Your task to perform on an android device: Do I have any events today? Image 0: 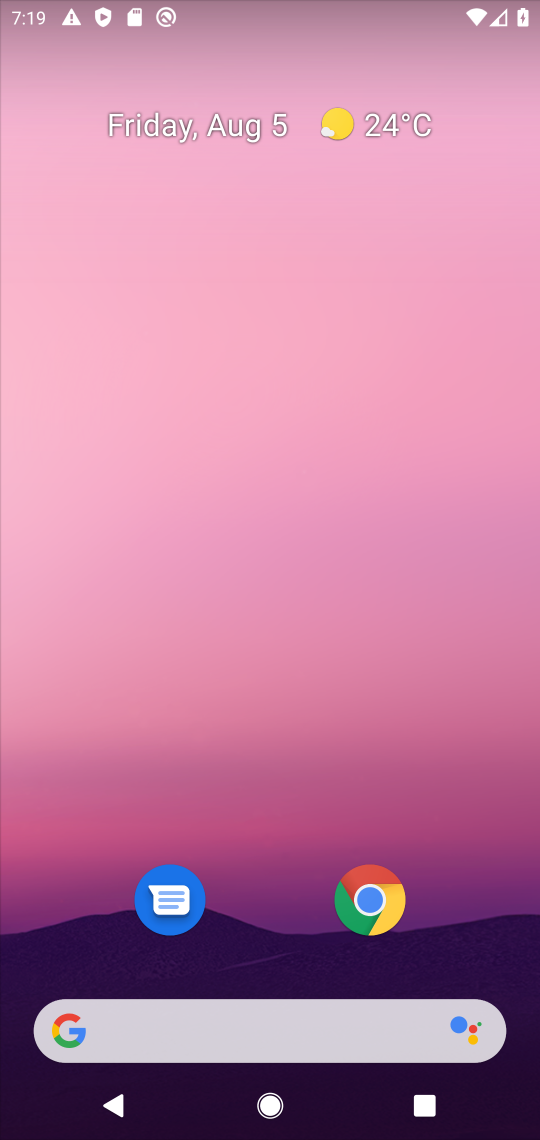
Step 0: drag from (471, 743) to (385, 3)
Your task to perform on an android device: Do I have any events today? Image 1: 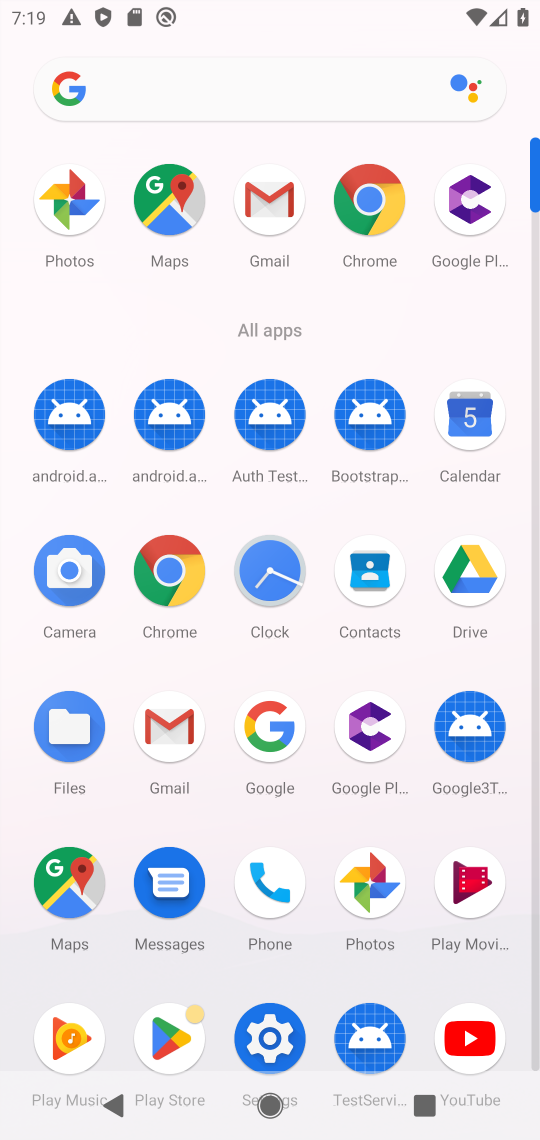
Step 1: click (492, 426)
Your task to perform on an android device: Do I have any events today? Image 2: 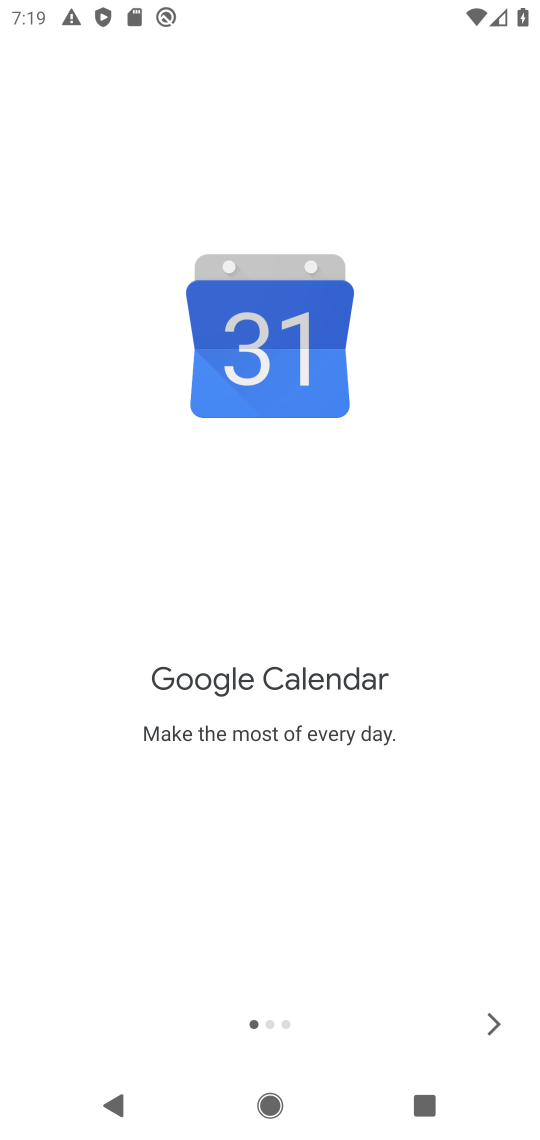
Step 2: click (494, 1017)
Your task to perform on an android device: Do I have any events today? Image 3: 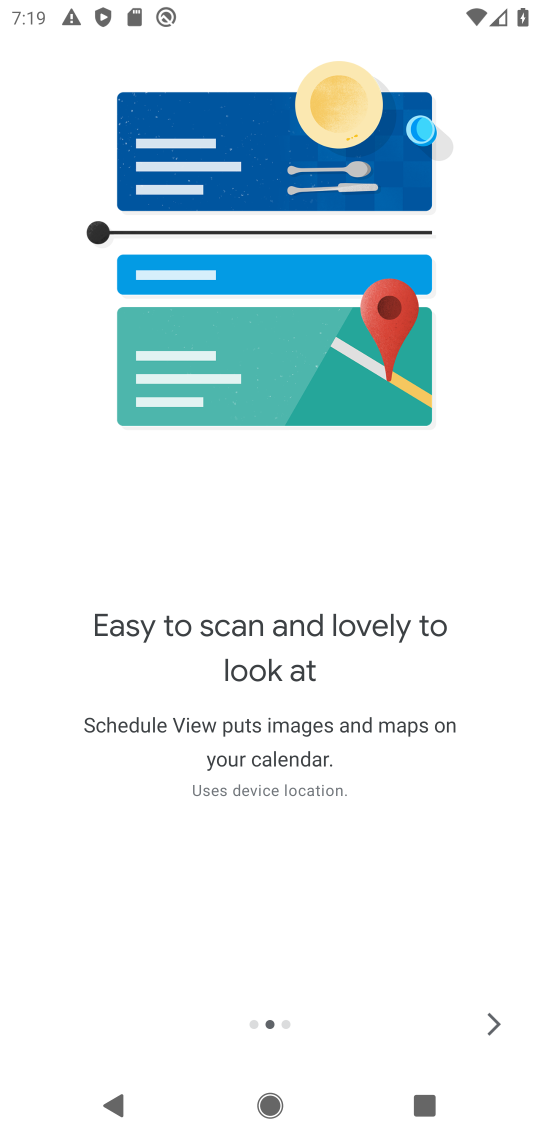
Step 3: click (494, 1017)
Your task to perform on an android device: Do I have any events today? Image 4: 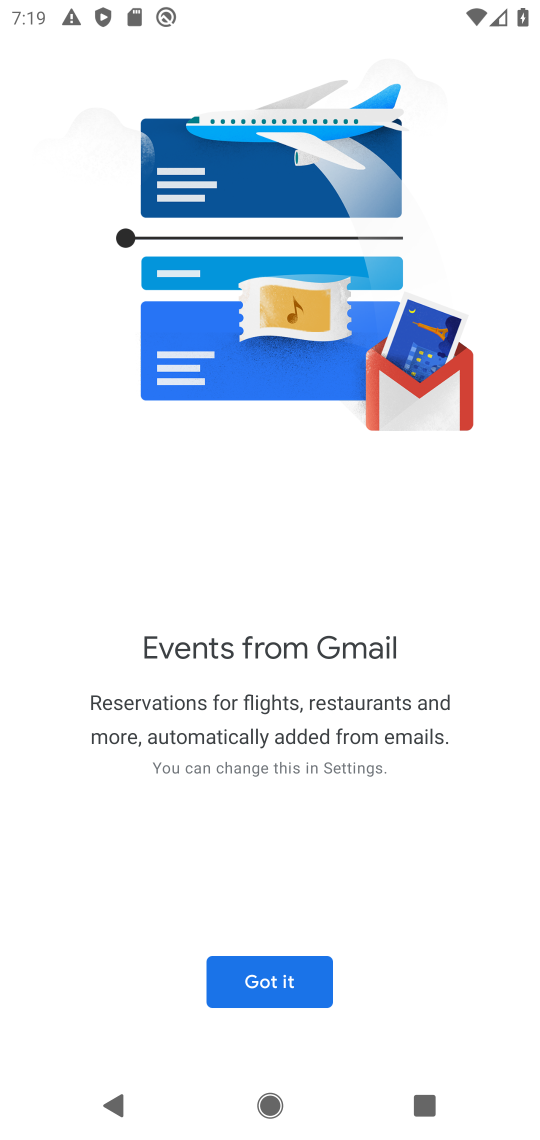
Step 4: click (246, 979)
Your task to perform on an android device: Do I have any events today? Image 5: 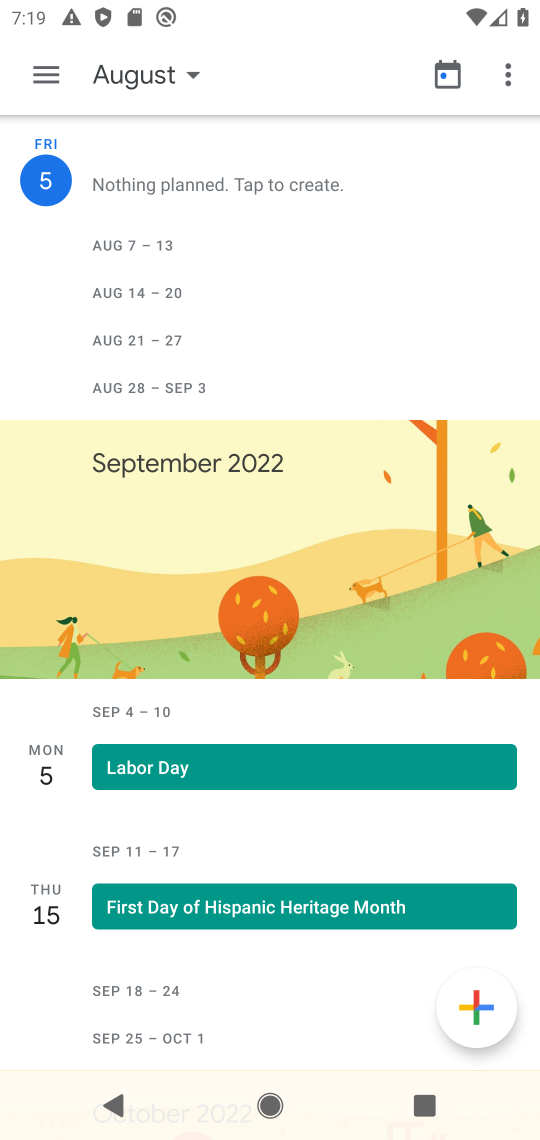
Step 5: click (57, 65)
Your task to perform on an android device: Do I have any events today? Image 6: 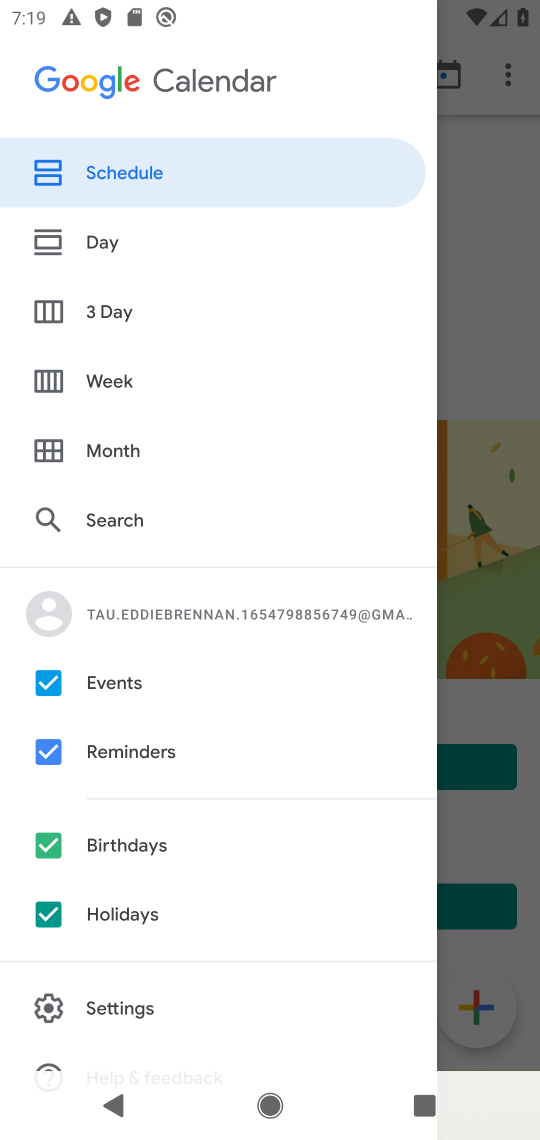
Step 6: click (122, 236)
Your task to perform on an android device: Do I have any events today? Image 7: 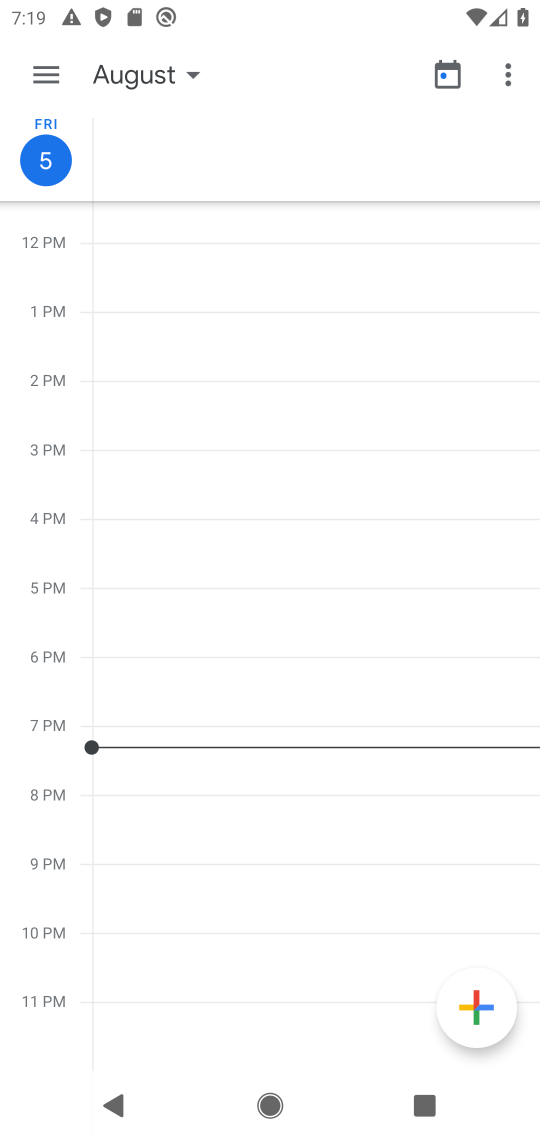
Step 7: task complete